Your task to perform on an android device: turn notification dots off Image 0: 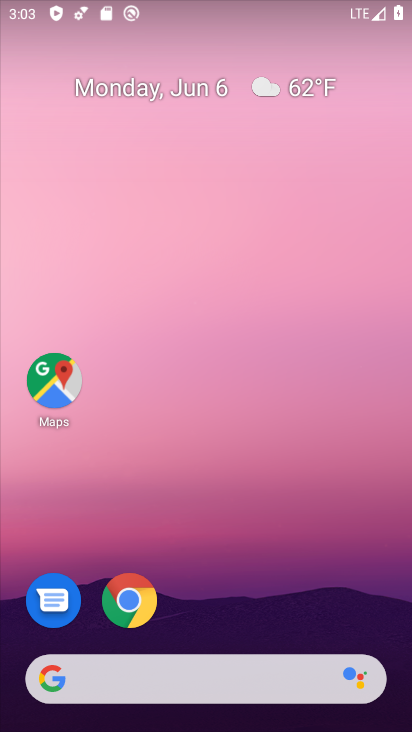
Step 0: drag from (252, 585) to (242, 36)
Your task to perform on an android device: turn notification dots off Image 1: 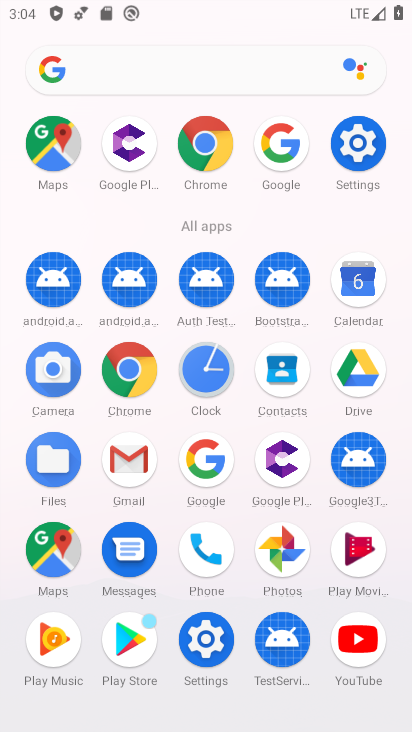
Step 1: click (357, 141)
Your task to perform on an android device: turn notification dots off Image 2: 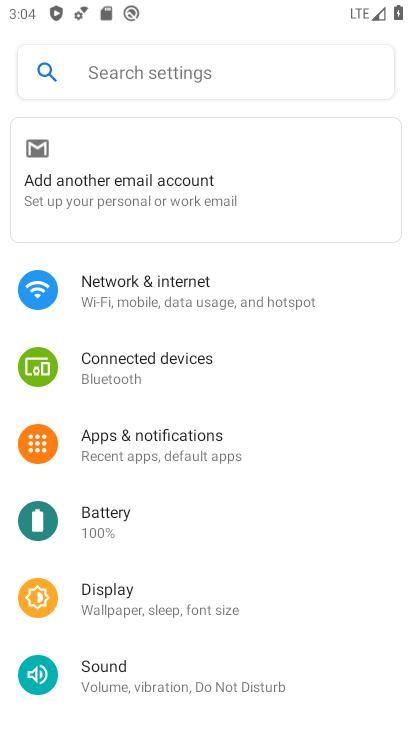
Step 2: click (180, 453)
Your task to perform on an android device: turn notification dots off Image 3: 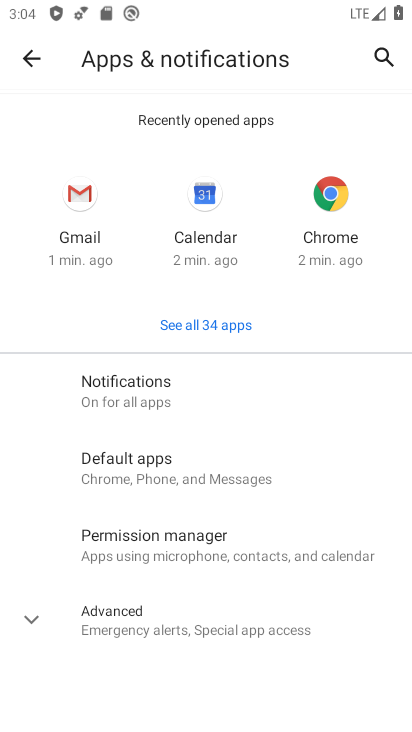
Step 3: click (130, 388)
Your task to perform on an android device: turn notification dots off Image 4: 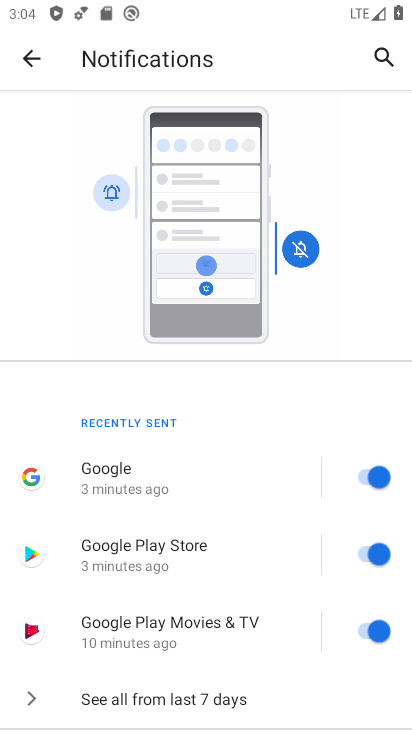
Step 4: drag from (245, 477) to (250, 293)
Your task to perform on an android device: turn notification dots off Image 5: 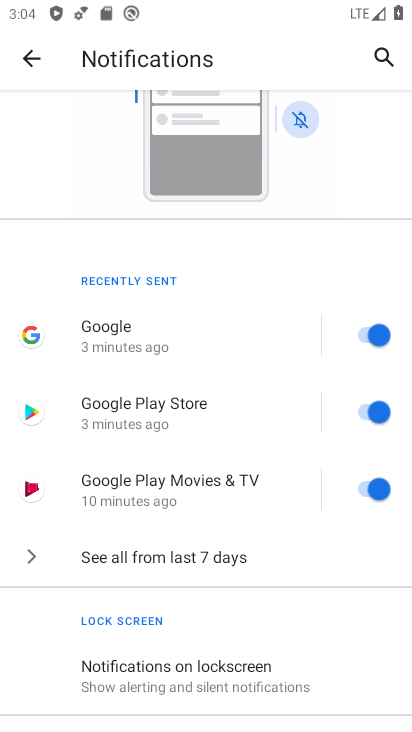
Step 5: drag from (208, 626) to (265, 449)
Your task to perform on an android device: turn notification dots off Image 6: 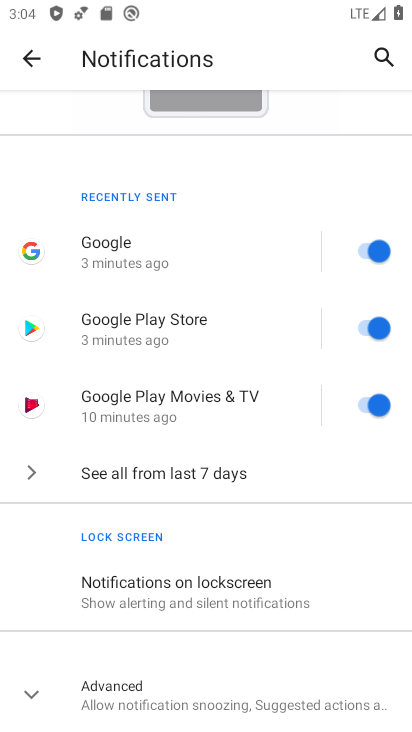
Step 6: click (302, 704)
Your task to perform on an android device: turn notification dots off Image 7: 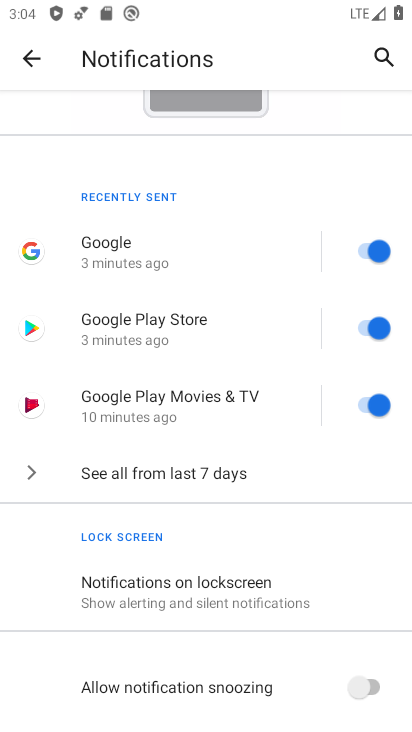
Step 7: drag from (165, 645) to (193, 458)
Your task to perform on an android device: turn notification dots off Image 8: 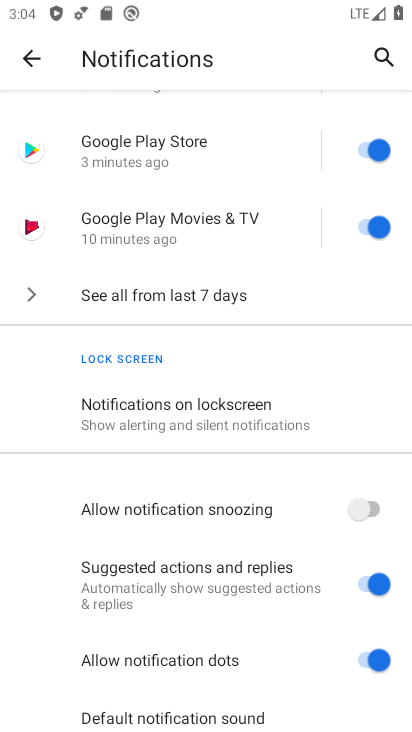
Step 8: click (366, 653)
Your task to perform on an android device: turn notification dots off Image 9: 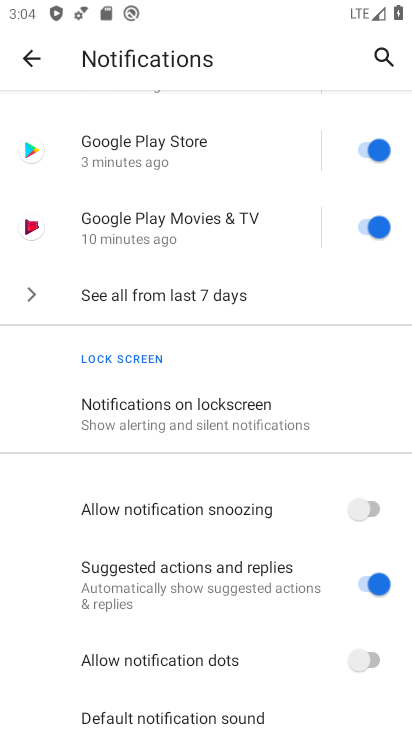
Step 9: task complete